Your task to perform on an android device: Go to Google Image 0: 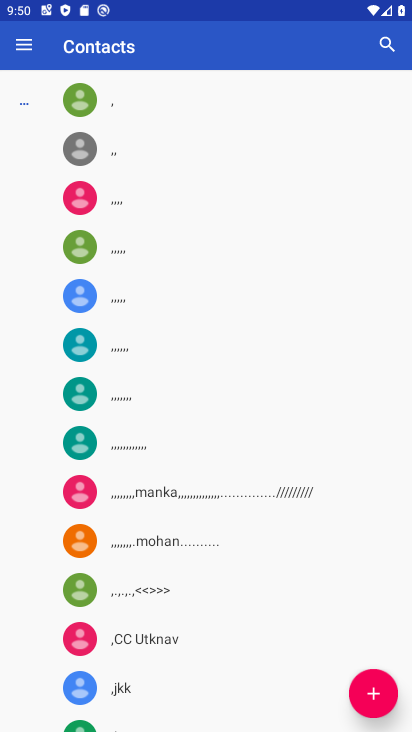
Step 0: press home button
Your task to perform on an android device: Go to Google Image 1: 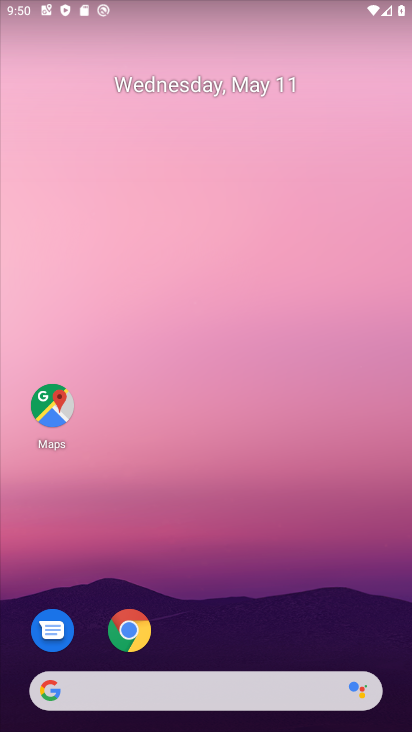
Step 1: drag from (213, 570) to (269, 150)
Your task to perform on an android device: Go to Google Image 2: 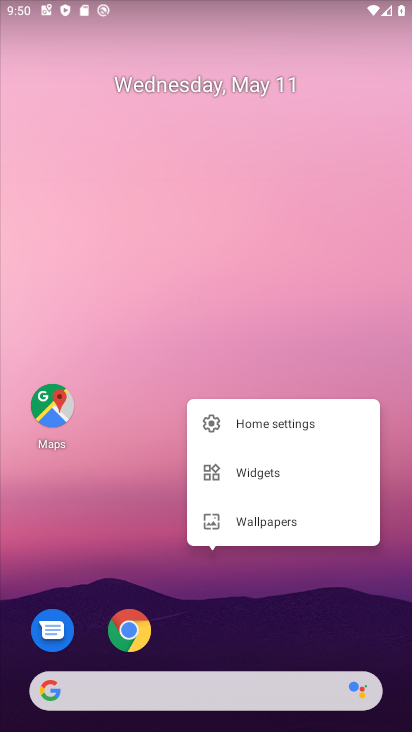
Step 2: click (358, 223)
Your task to perform on an android device: Go to Google Image 3: 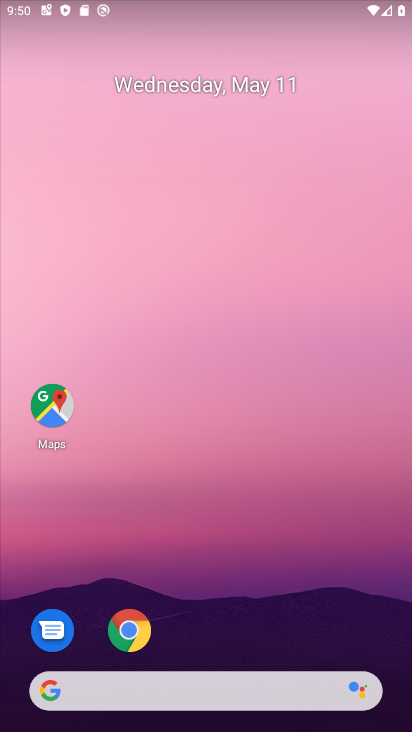
Step 3: drag from (285, 649) to (357, 89)
Your task to perform on an android device: Go to Google Image 4: 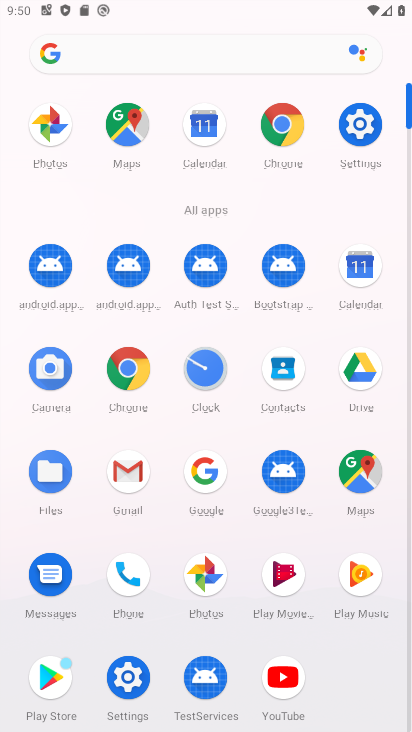
Step 4: drag from (333, 643) to (362, 203)
Your task to perform on an android device: Go to Google Image 5: 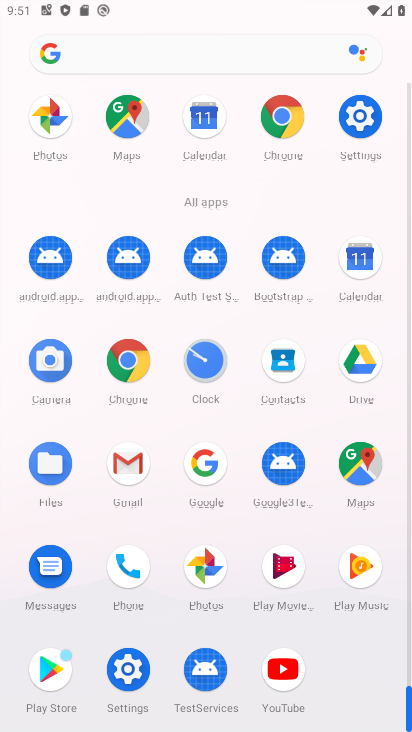
Step 5: click (196, 458)
Your task to perform on an android device: Go to Google Image 6: 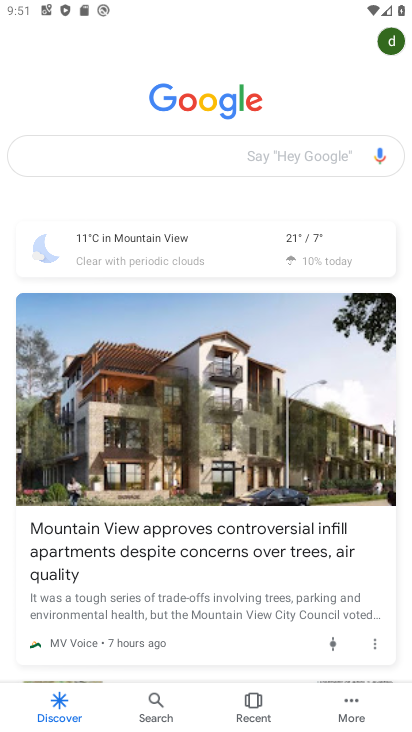
Step 6: task complete